Your task to perform on an android device: Add logitech g502 to the cart on newegg Image 0: 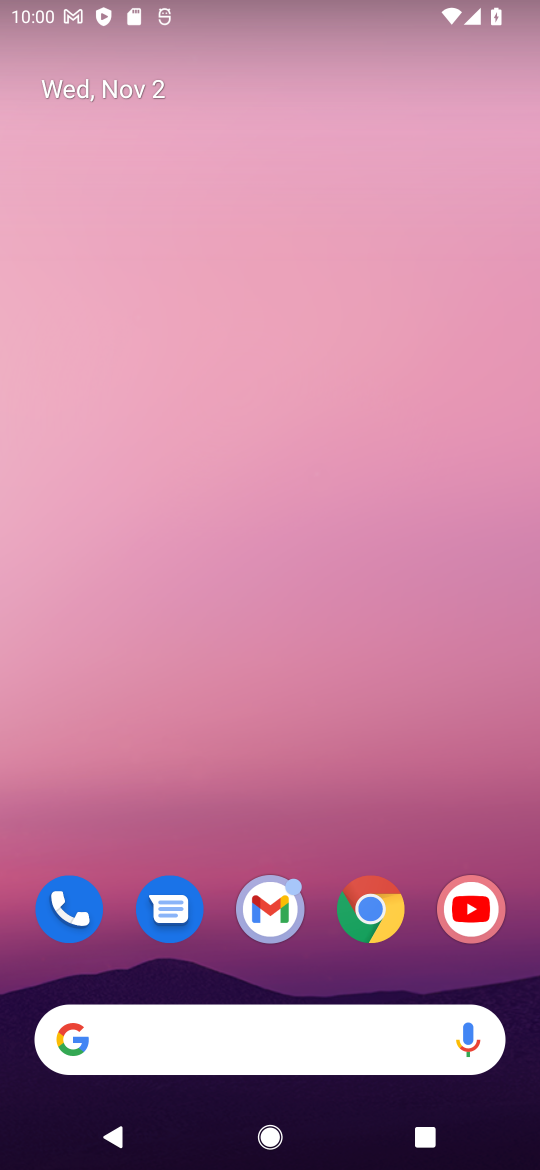
Step 0: click (383, 914)
Your task to perform on an android device: Add logitech g502 to the cart on newegg Image 1: 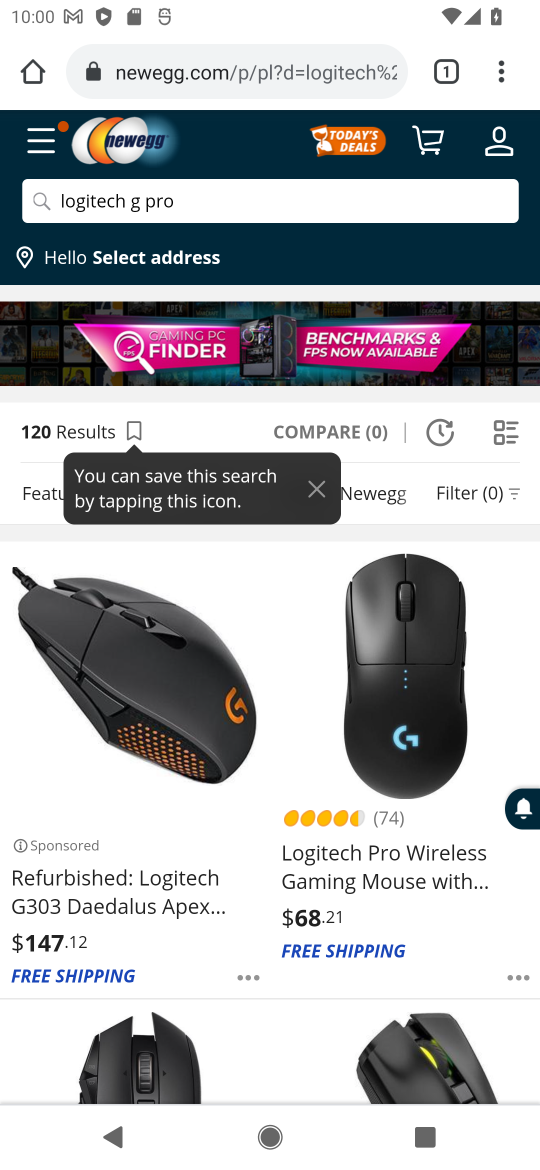
Step 1: click (222, 72)
Your task to perform on an android device: Add logitech g502 to the cart on newegg Image 2: 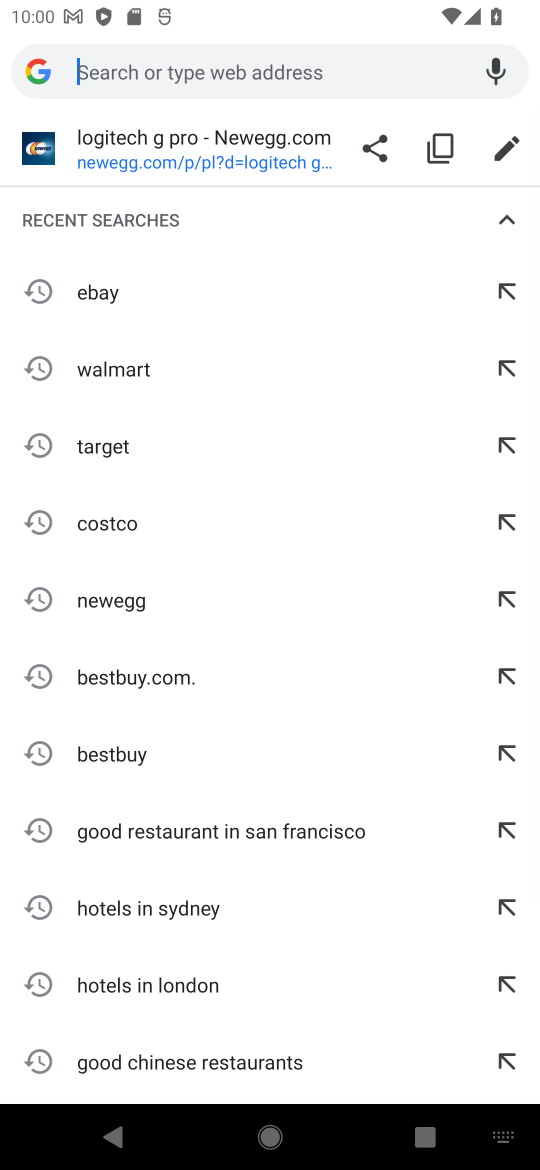
Step 2: type "newegg"
Your task to perform on an android device: Add logitech g502 to the cart on newegg Image 3: 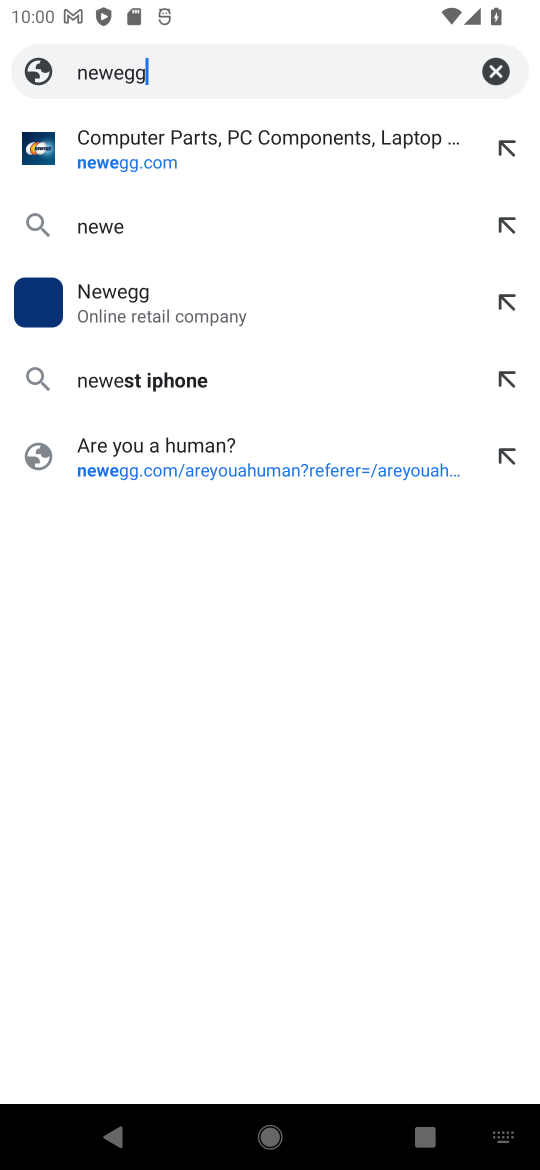
Step 3: type ""
Your task to perform on an android device: Add logitech g502 to the cart on newegg Image 4: 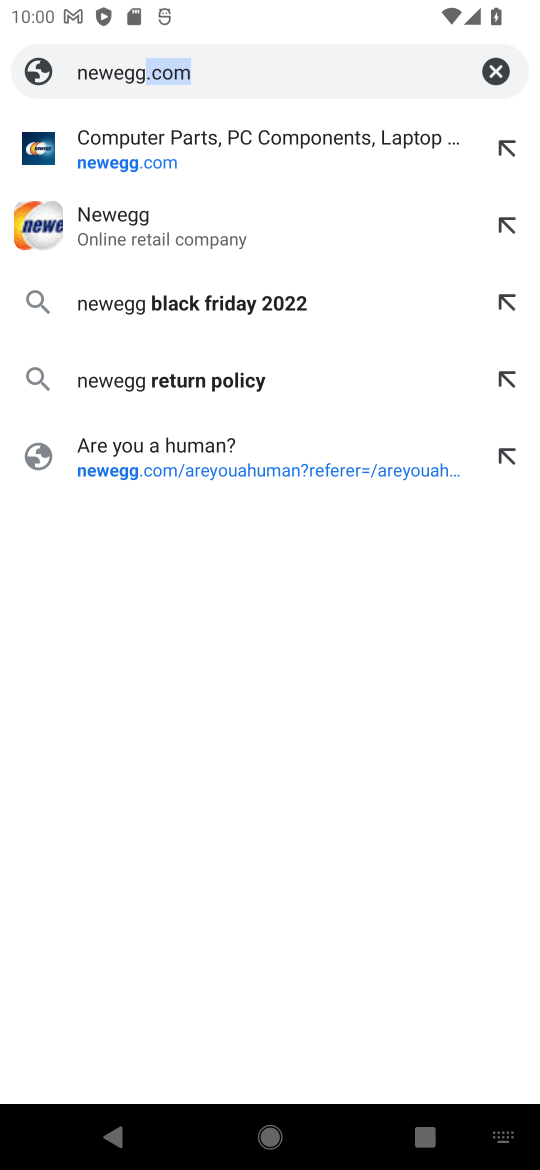
Step 4: press enter
Your task to perform on an android device: Add logitech g502 to the cart on newegg Image 5: 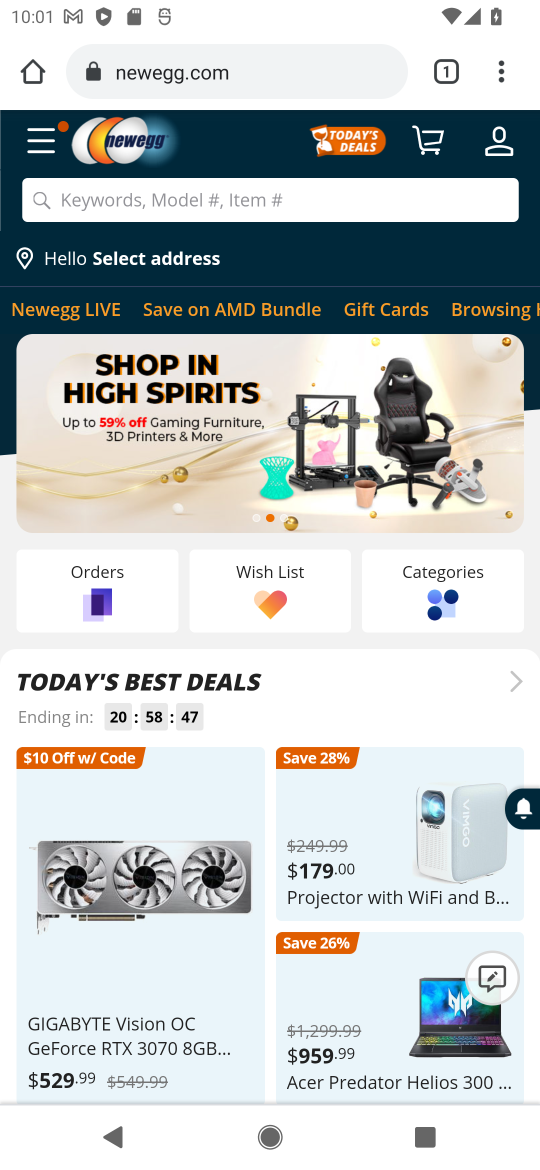
Step 5: click (170, 197)
Your task to perform on an android device: Add logitech g502 to the cart on newegg Image 6: 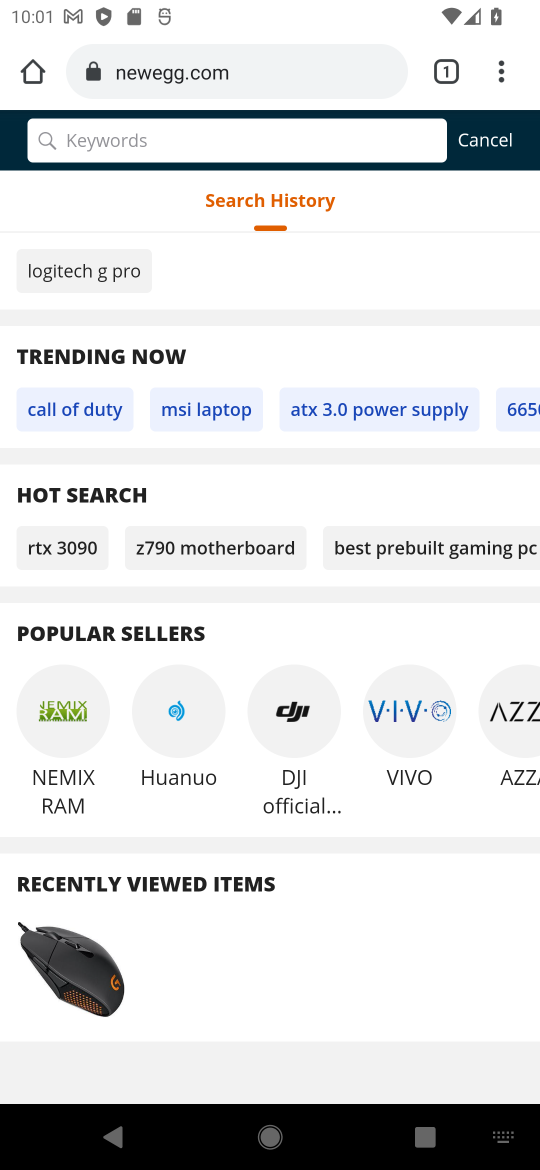
Step 6: type "logitech g502"
Your task to perform on an android device: Add logitech g502 to the cart on newegg Image 7: 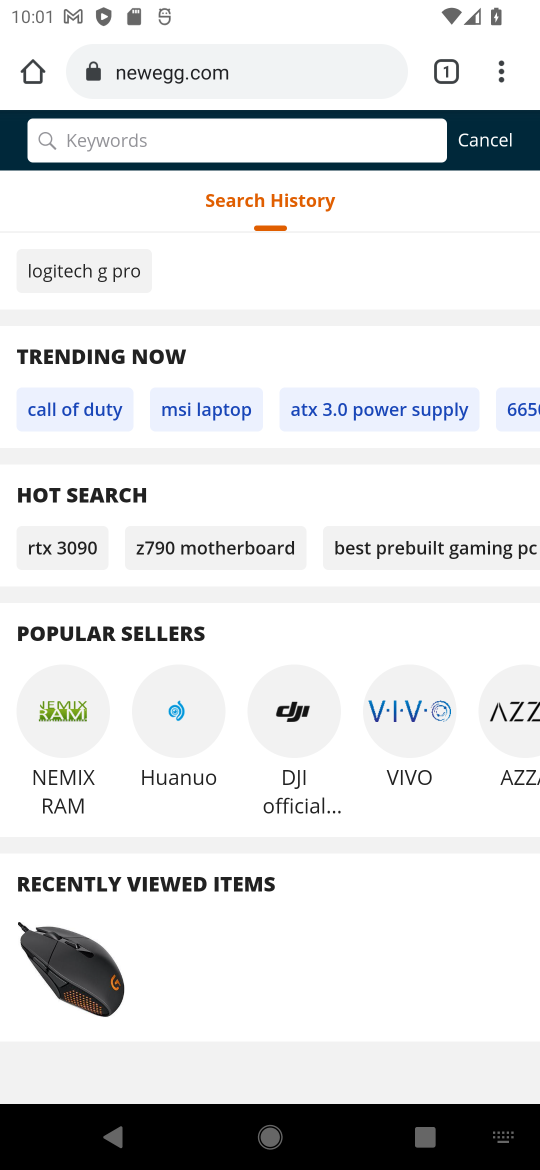
Step 7: type ""
Your task to perform on an android device: Add logitech g502 to the cart on newegg Image 8: 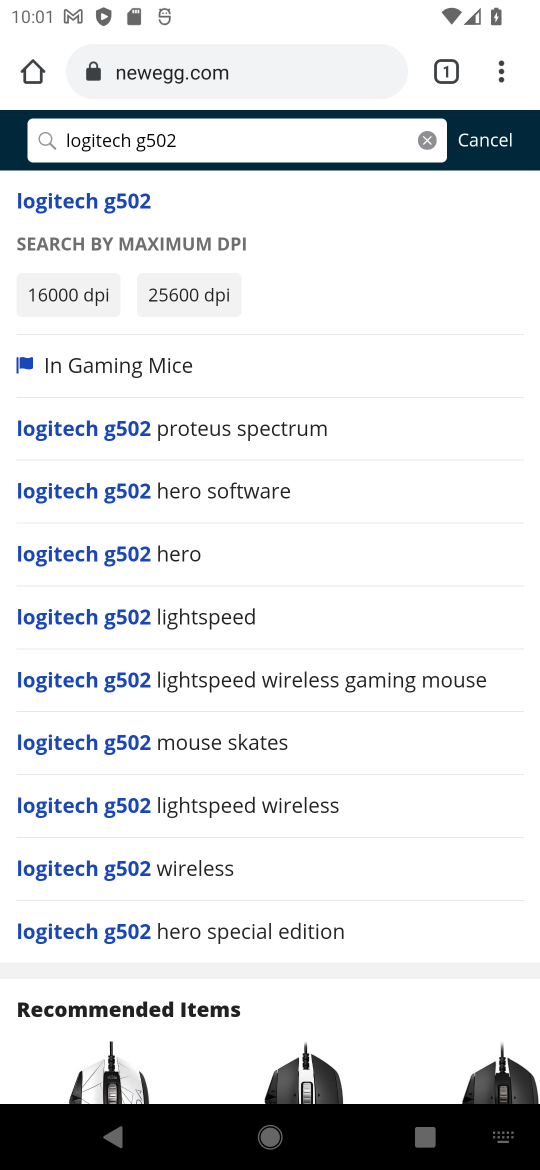
Step 8: press enter
Your task to perform on an android device: Add logitech g502 to the cart on newegg Image 9: 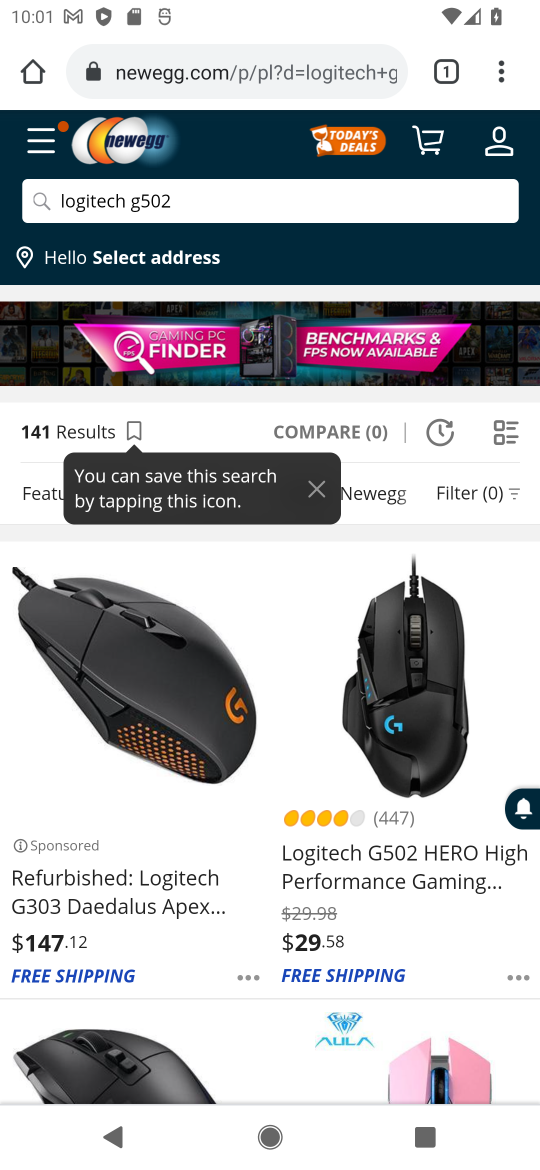
Step 9: click (335, 731)
Your task to perform on an android device: Add logitech g502 to the cart on newegg Image 10: 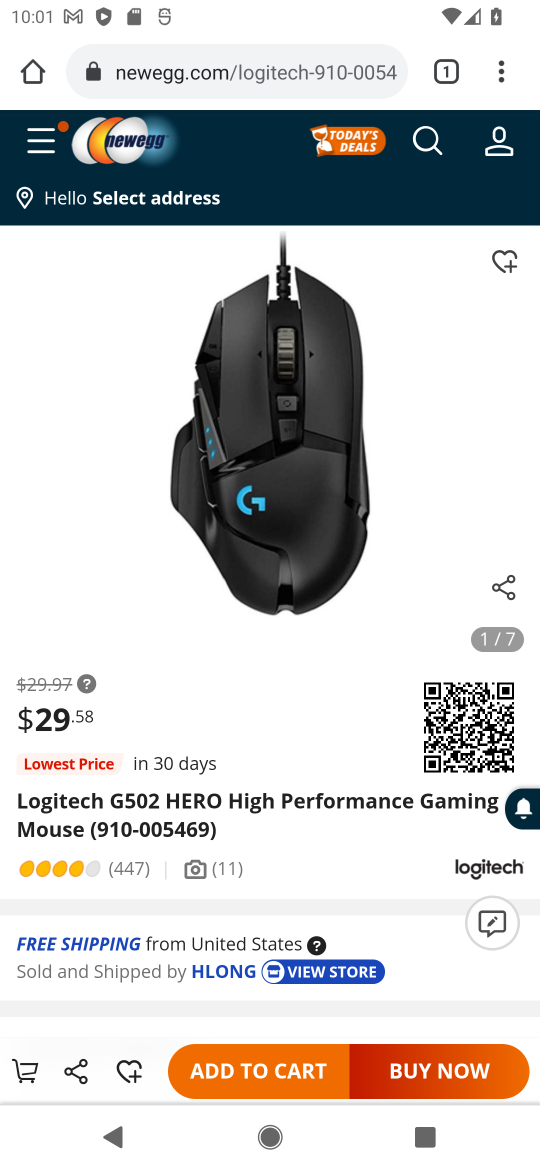
Step 10: click (258, 1078)
Your task to perform on an android device: Add logitech g502 to the cart on newegg Image 11: 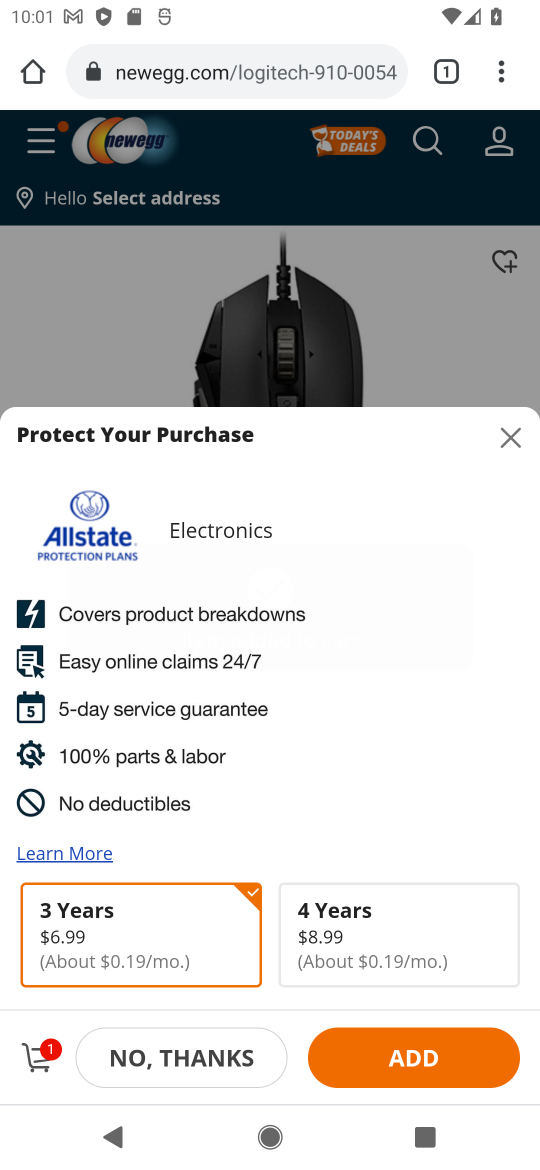
Step 11: task complete